Your task to perform on an android device: change the clock style Image 0: 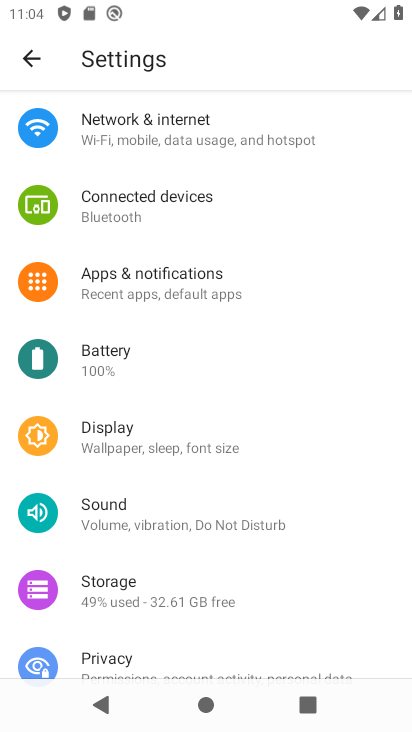
Step 0: press home button
Your task to perform on an android device: change the clock style Image 1: 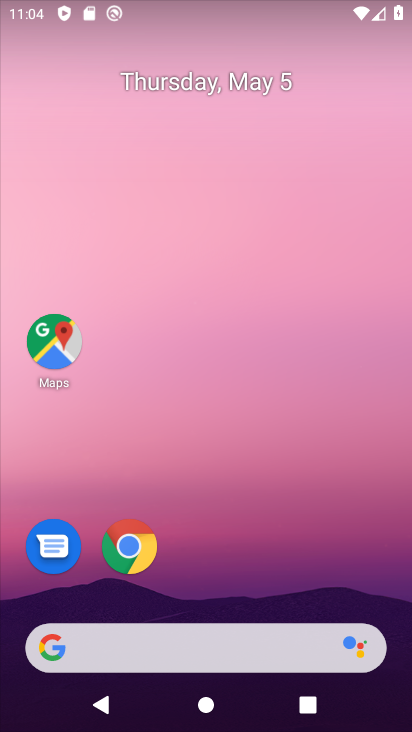
Step 1: drag from (252, 616) to (229, 27)
Your task to perform on an android device: change the clock style Image 2: 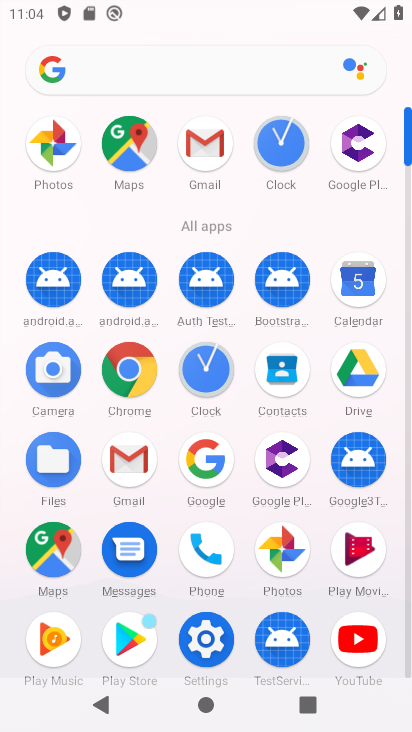
Step 2: click (197, 383)
Your task to perform on an android device: change the clock style Image 3: 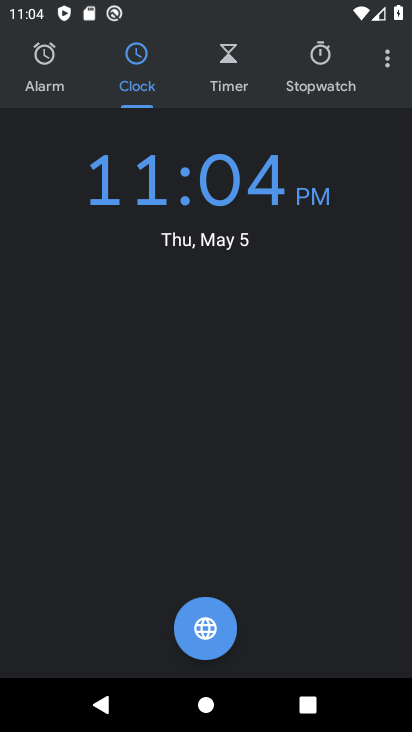
Step 3: click (388, 70)
Your task to perform on an android device: change the clock style Image 4: 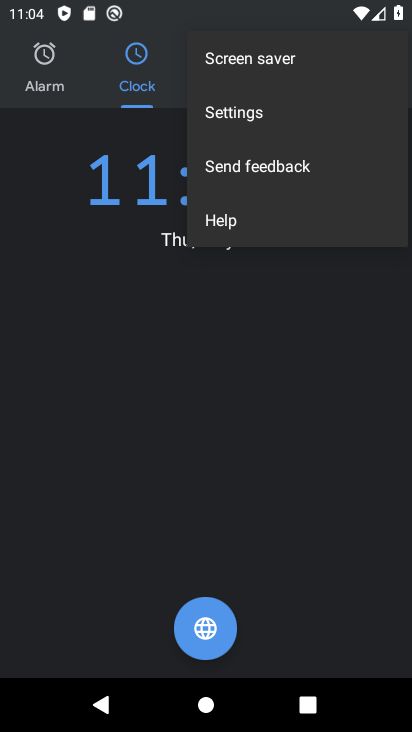
Step 4: click (254, 110)
Your task to perform on an android device: change the clock style Image 5: 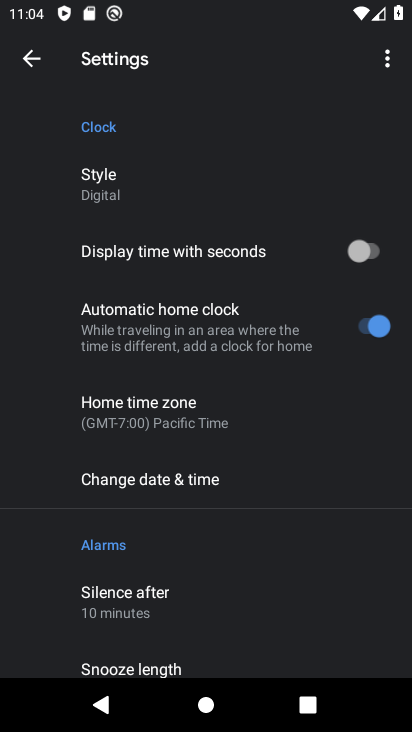
Step 5: click (121, 166)
Your task to perform on an android device: change the clock style Image 6: 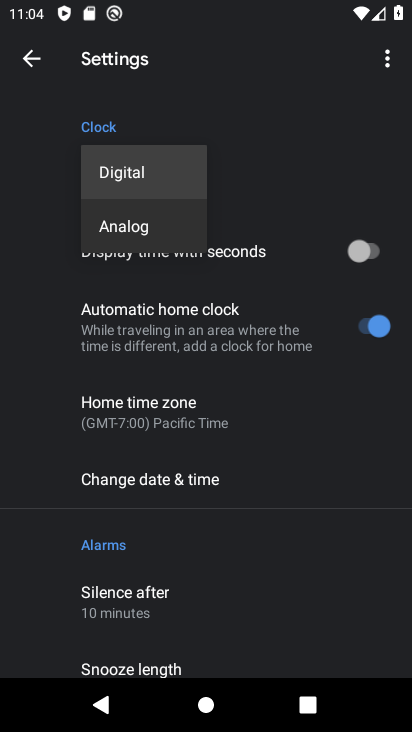
Step 6: click (128, 213)
Your task to perform on an android device: change the clock style Image 7: 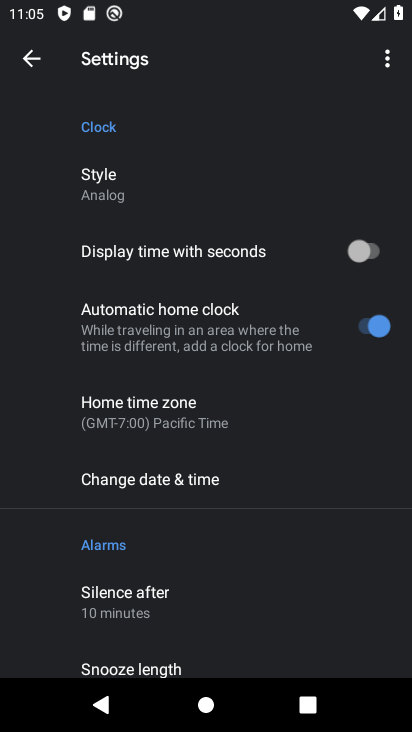
Step 7: task complete